Your task to perform on an android device: Show me recent news Image 0: 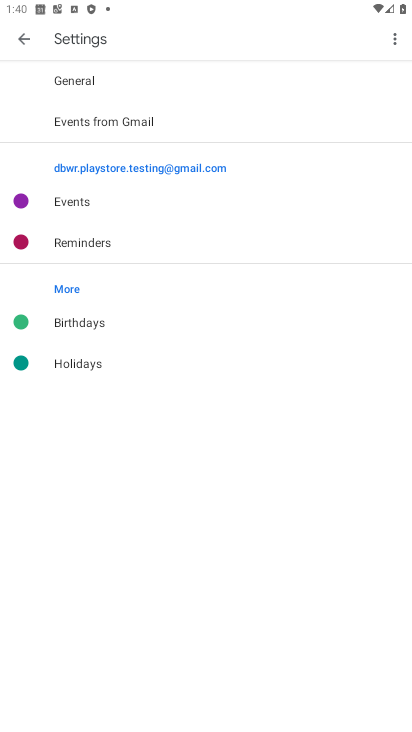
Step 0: press home button
Your task to perform on an android device: Show me recent news Image 1: 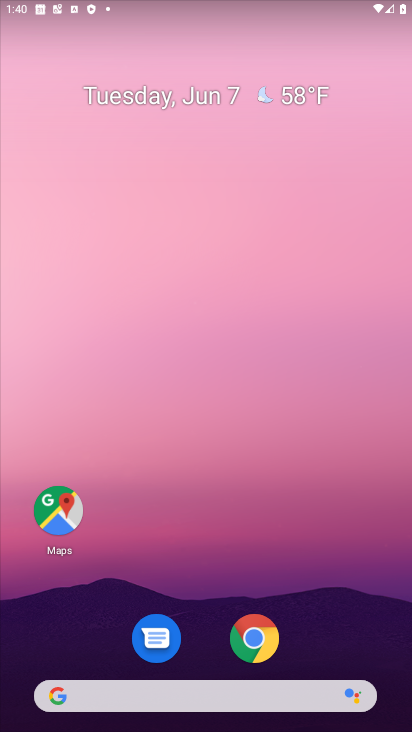
Step 1: click (259, 642)
Your task to perform on an android device: Show me recent news Image 2: 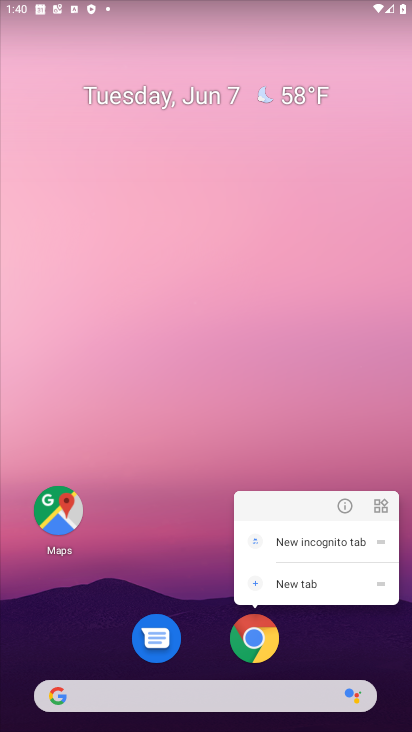
Step 2: click (350, 508)
Your task to perform on an android device: Show me recent news Image 3: 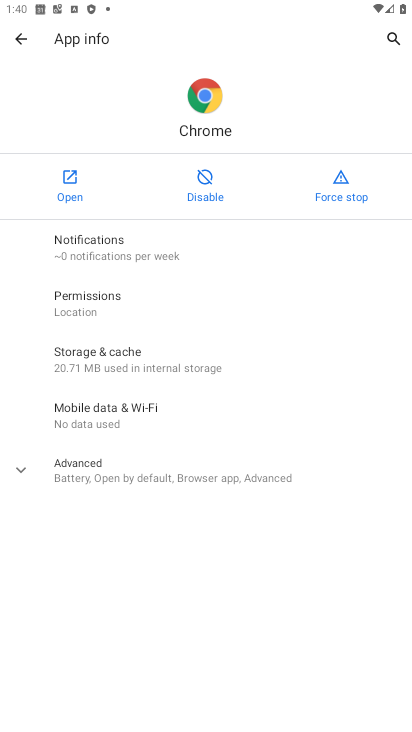
Step 3: click (79, 204)
Your task to perform on an android device: Show me recent news Image 4: 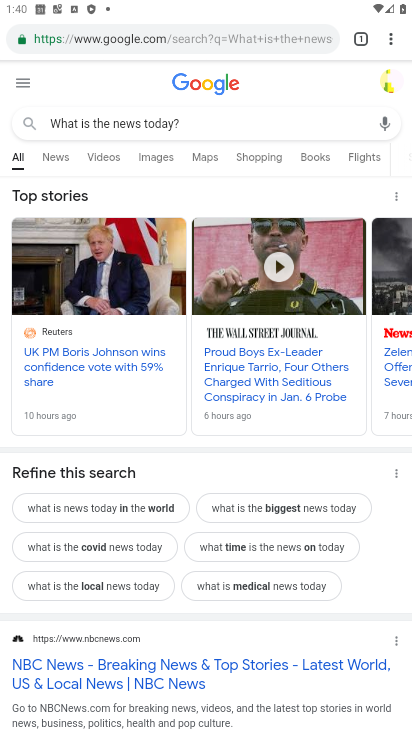
Step 4: click (101, 41)
Your task to perform on an android device: Show me recent news Image 5: 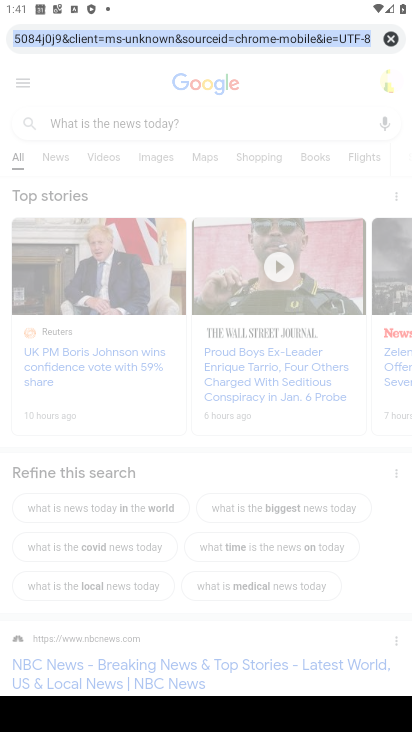
Step 5: type "pizza restaurants "
Your task to perform on an android device: Show me recent news Image 6: 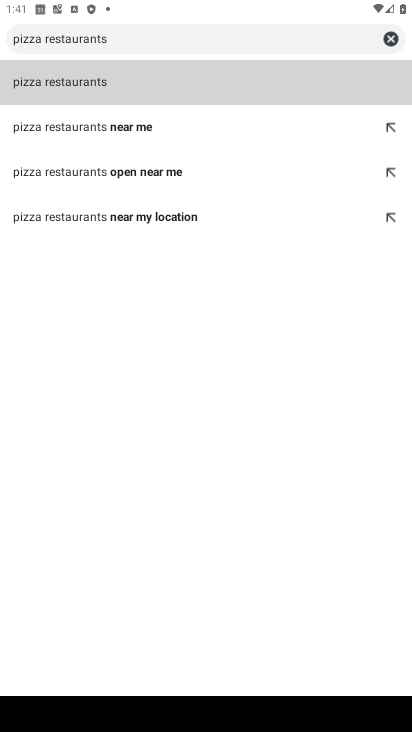
Step 6: click (387, 36)
Your task to perform on an android device: Show me recent news Image 7: 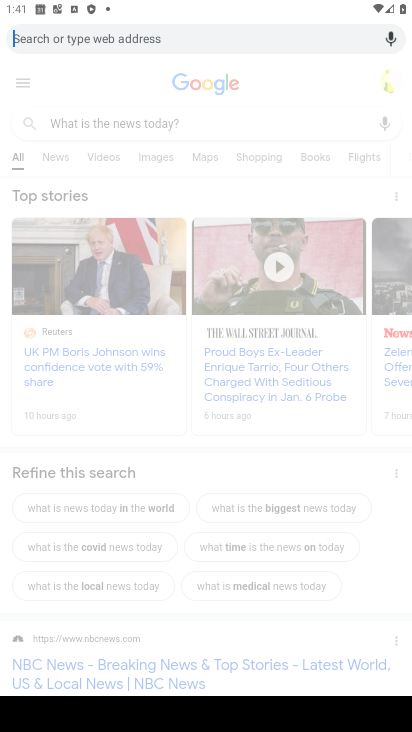
Step 7: type "recent news"
Your task to perform on an android device: Show me recent news Image 8: 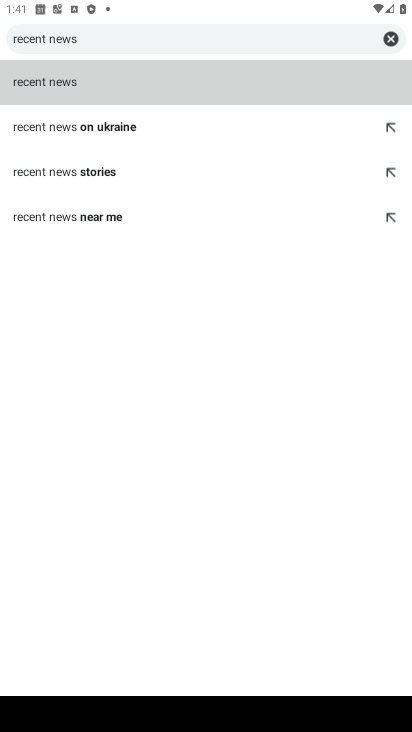
Step 8: click (44, 80)
Your task to perform on an android device: Show me recent news Image 9: 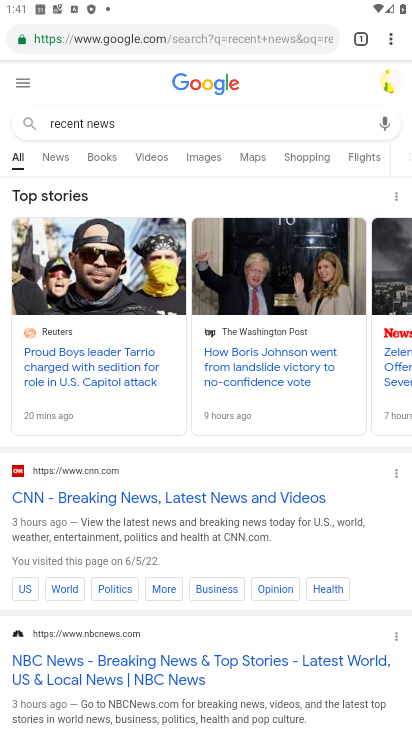
Step 9: task complete